Your task to perform on an android device: turn on showing notifications on the lock screen Image 0: 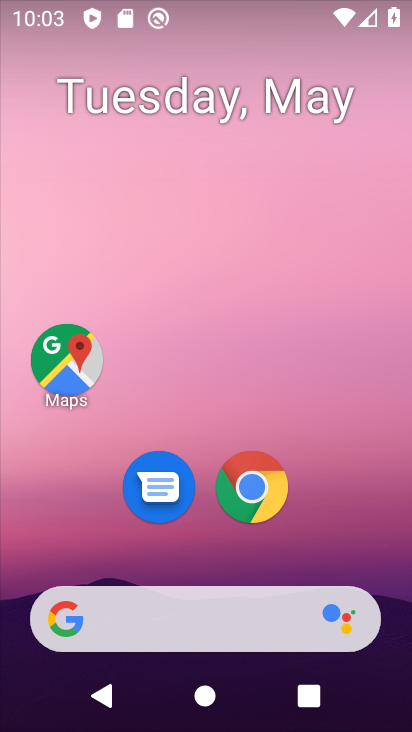
Step 0: drag from (321, 510) to (255, 73)
Your task to perform on an android device: turn on showing notifications on the lock screen Image 1: 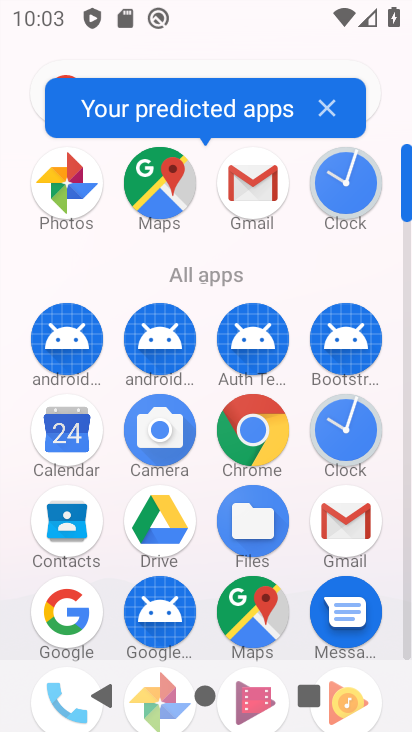
Step 1: drag from (209, 485) to (232, 276)
Your task to perform on an android device: turn on showing notifications on the lock screen Image 2: 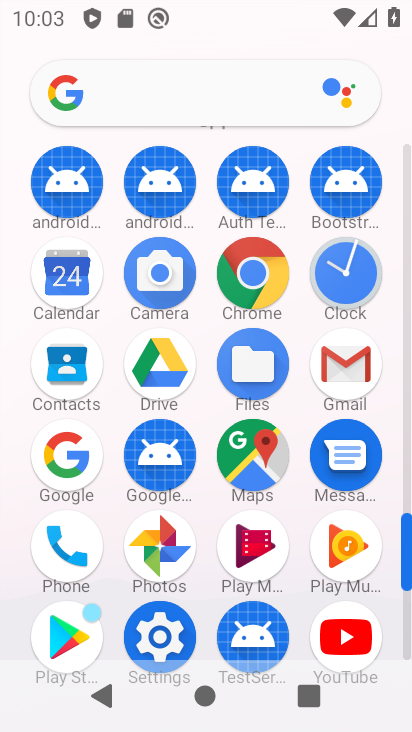
Step 2: click (160, 632)
Your task to perform on an android device: turn on showing notifications on the lock screen Image 3: 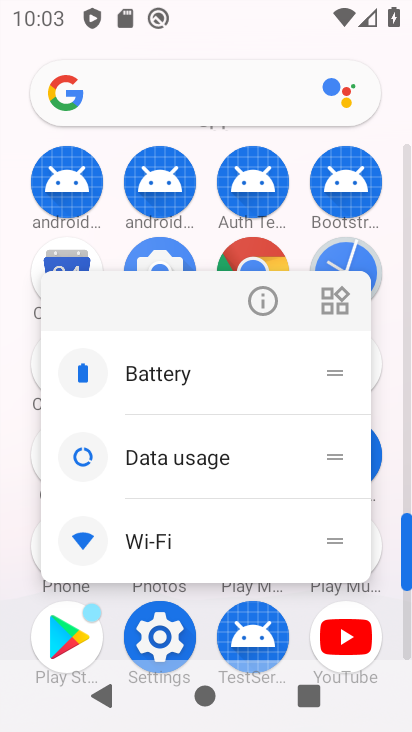
Step 3: click (160, 632)
Your task to perform on an android device: turn on showing notifications on the lock screen Image 4: 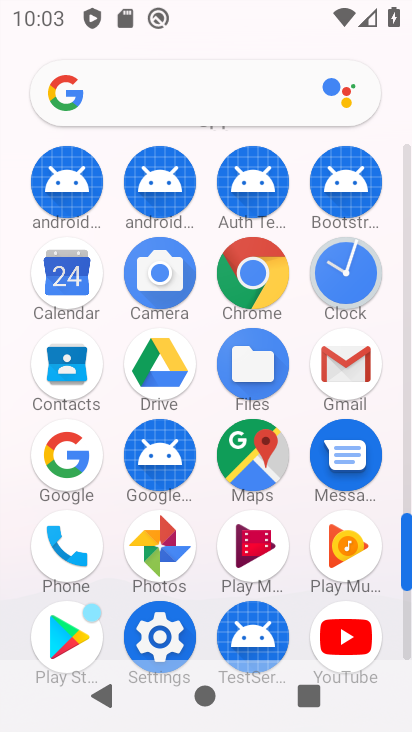
Step 4: click (162, 637)
Your task to perform on an android device: turn on showing notifications on the lock screen Image 5: 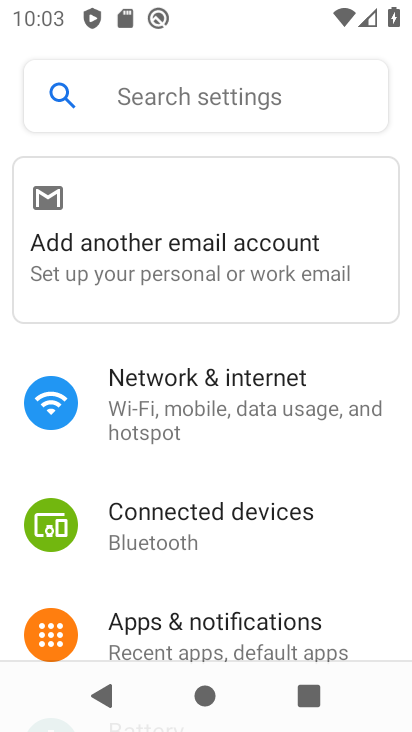
Step 5: click (181, 629)
Your task to perform on an android device: turn on showing notifications on the lock screen Image 6: 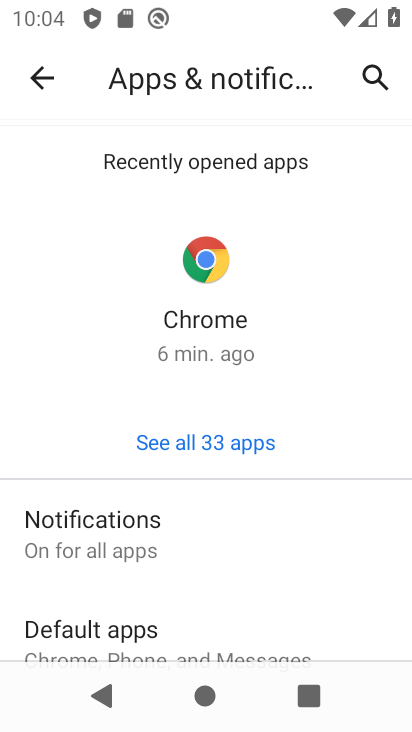
Step 6: click (119, 517)
Your task to perform on an android device: turn on showing notifications on the lock screen Image 7: 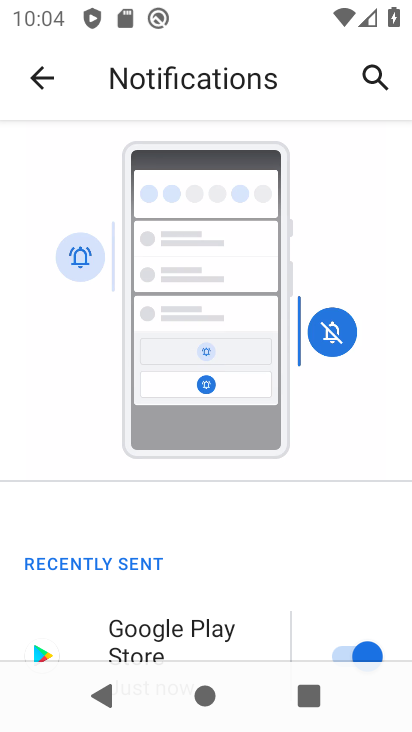
Step 7: drag from (216, 569) to (261, 447)
Your task to perform on an android device: turn on showing notifications on the lock screen Image 8: 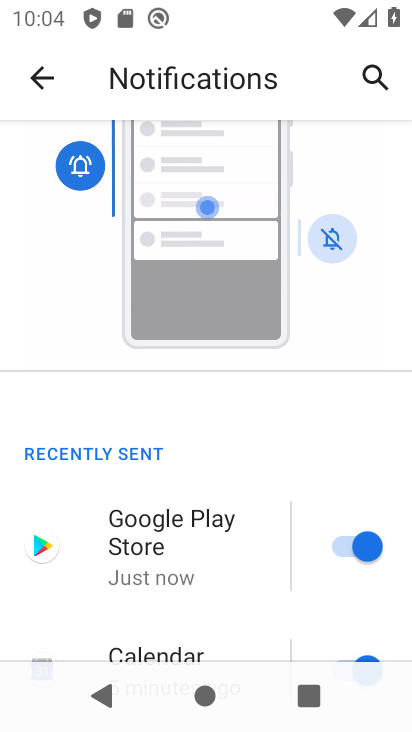
Step 8: drag from (218, 596) to (265, 468)
Your task to perform on an android device: turn on showing notifications on the lock screen Image 9: 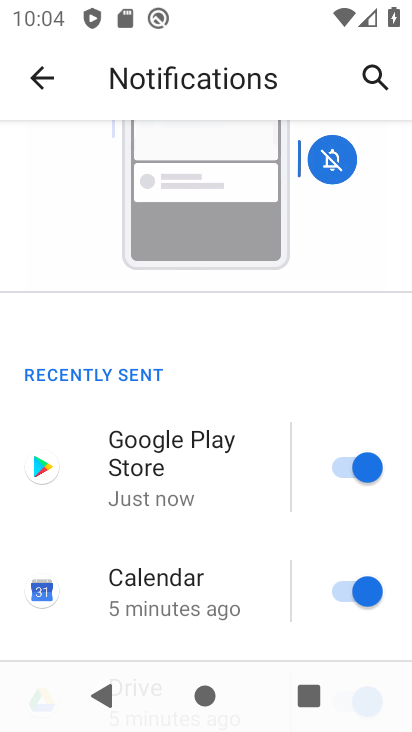
Step 9: drag from (226, 550) to (290, 429)
Your task to perform on an android device: turn on showing notifications on the lock screen Image 10: 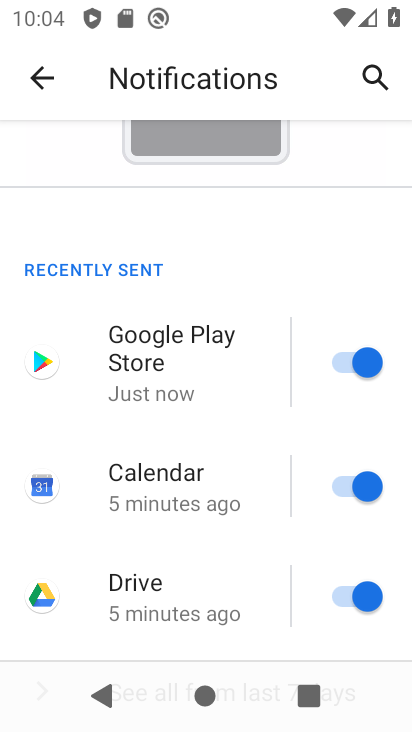
Step 10: drag from (192, 565) to (263, 451)
Your task to perform on an android device: turn on showing notifications on the lock screen Image 11: 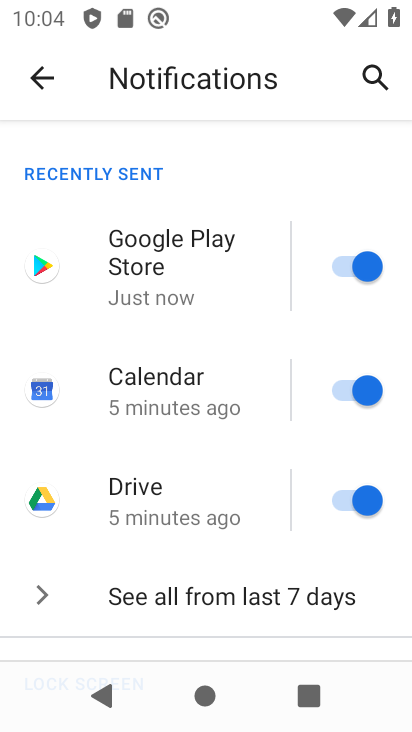
Step 11: drag from (180, 563) to (245, 454)
Your task to perform on an android device: turn on showing notifications on the lock screen Image 12: 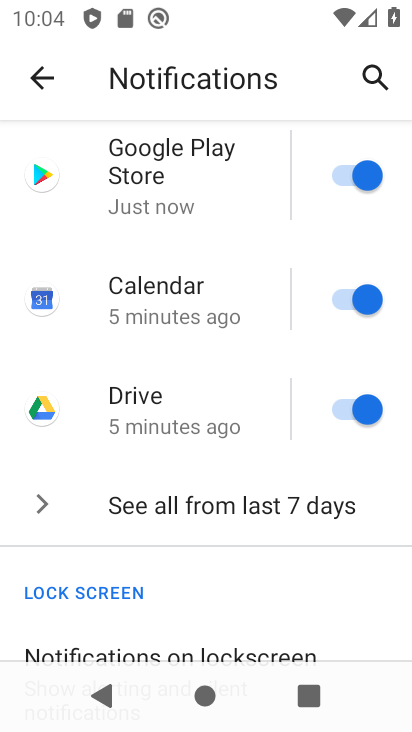
Step 12: drag from (211, 608) to (286, 489)
Your task to perform on an android device: turn on showing notifications on the lock screen Image 13: 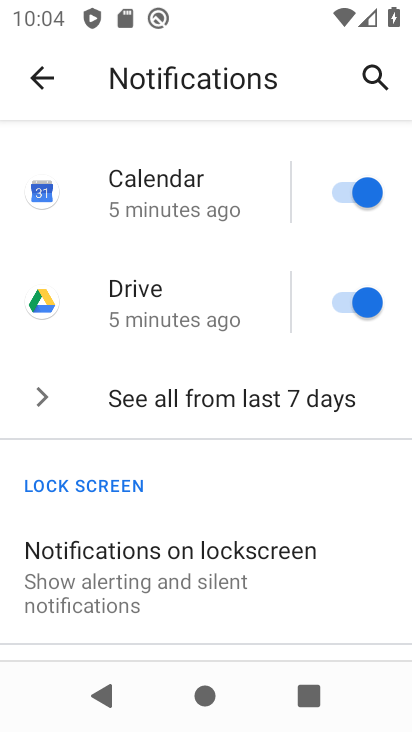
Step 13: click (243, 542)
Your task to perform on an android device: turn on showing notifications on the lock screen Image 14: 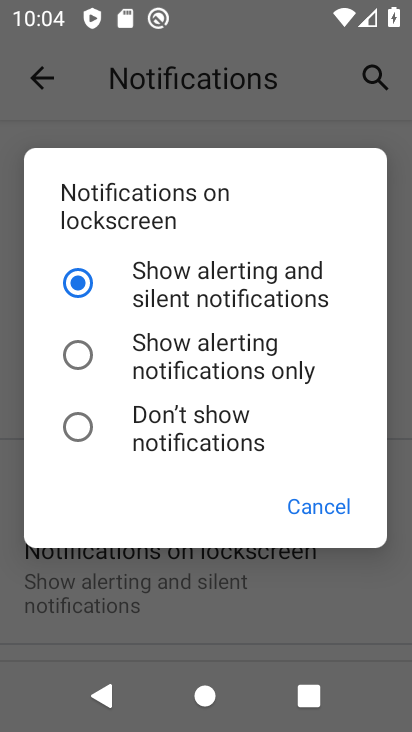
Step 14: click (77, 275)
Your task to perform on an android device: turn on showing notifications on the lock screen Image 15: 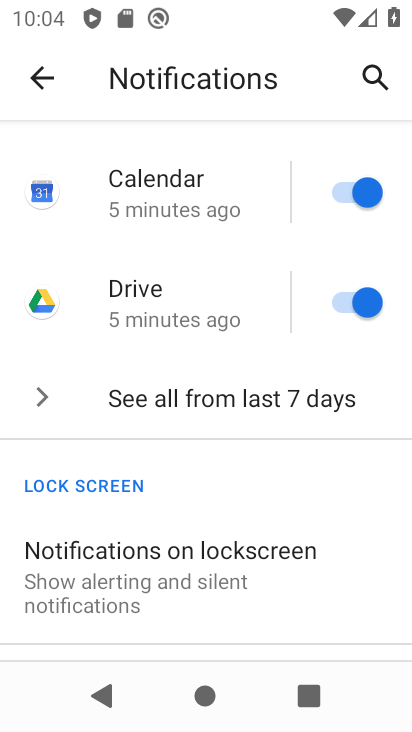
Step 15: task complete